Your task to perform on an android device: toggle sleep mode Image 0: 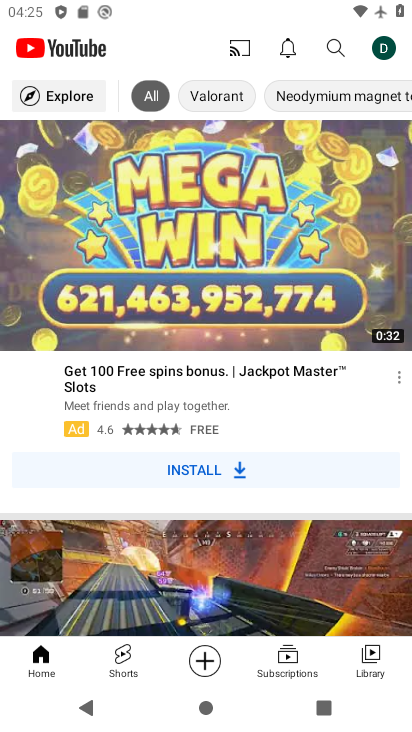
Step 0: press home button
Your task to perform on an android device: toggle sleep mode Image 1: 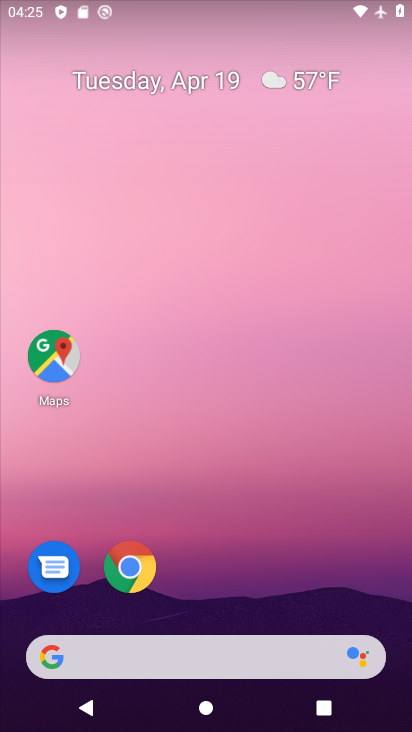
Step 1: drag from (356, 573) to (370, 157)
Your task to perform on an android device: toggle sleep mode Image 2: 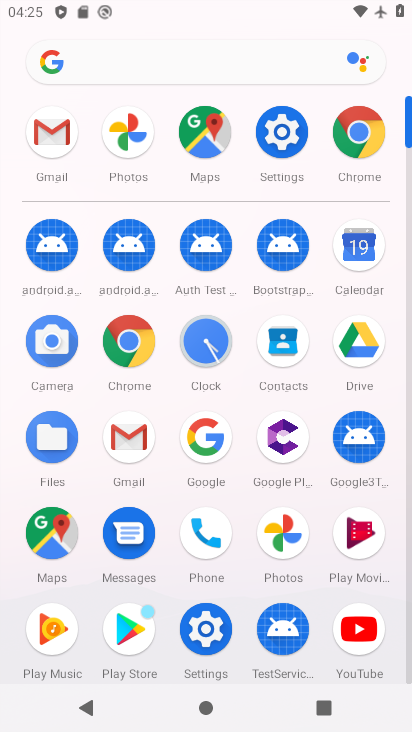
Step 2: click (277, 142)
Your task to perform on an android device: toggle sleep mode Image 3: 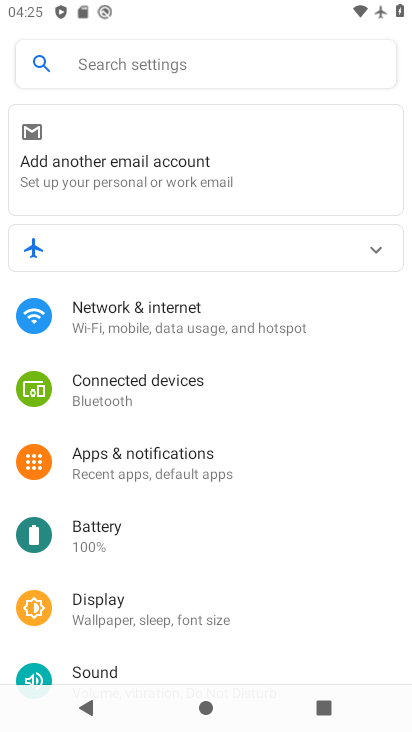
Step 3: drag from (369, 535) to (368, 439)
Your task to perform on an android device: toggle sleep mode Image 4: 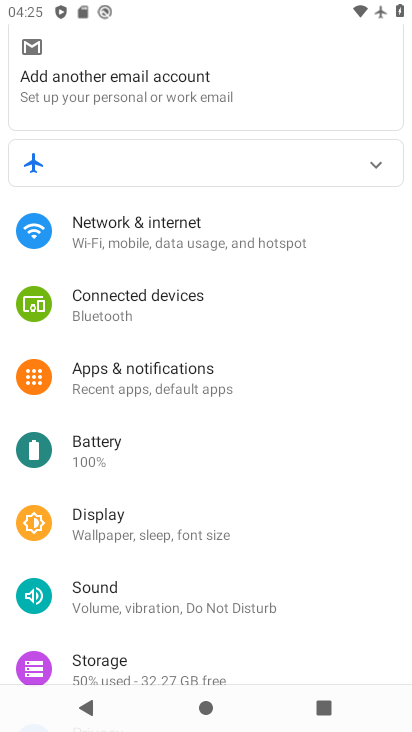
Step 4: drag from (370, 557) to (370, 450)
Your task to perform on an android device: toggle sleep mode Image 5: 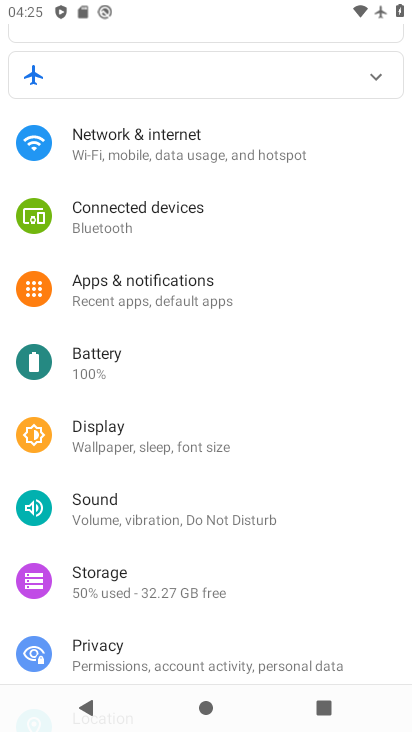
Step 5: drag from (362, 583) to (368, 462)
Your task to perform on an android device: toggle sleep mode Image 6: 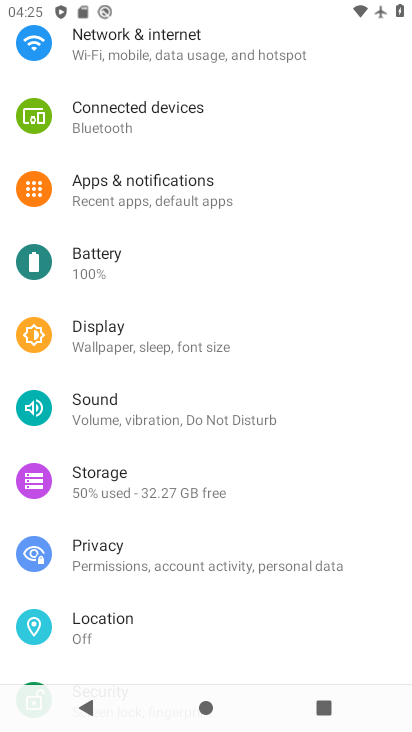
Step 6: drag from (364, 622) to (361, 509)
Your task to perform on an android device: toggle sleep mode Image 7: 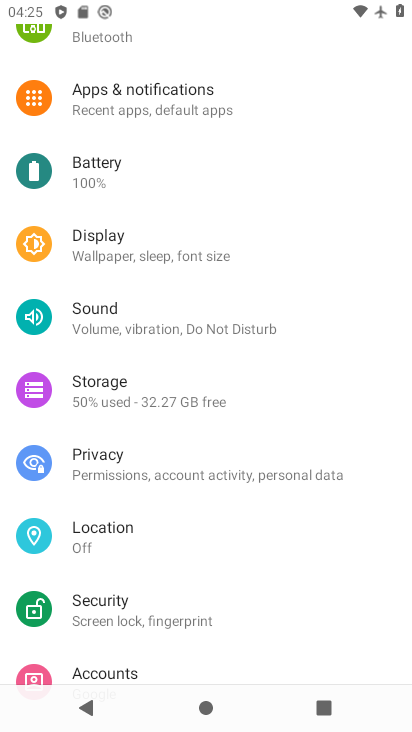
Step 7: drag from (359, 589) to (368, 481)
Your task to perform on an android device: toggle sleep mode Image 8: 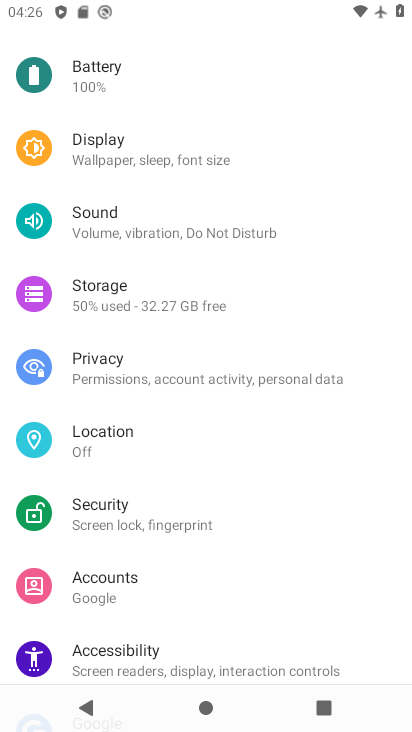
Step 8: drag from (366, 567) to (368, 480)
Your task to perform on an android device: toggle sleep mode Image 9: 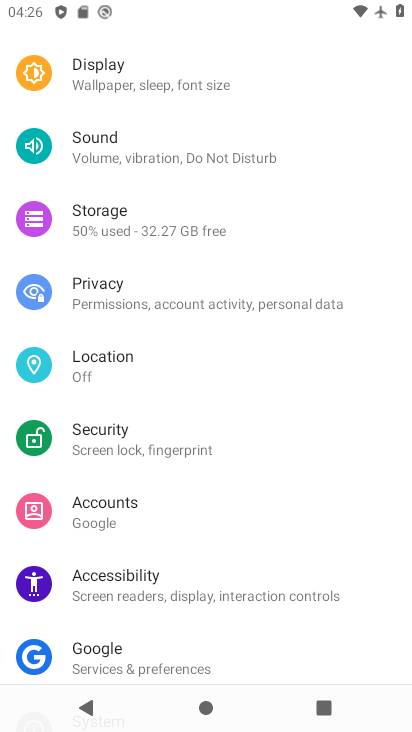
Step 9: drag from (366, 612) to (369, 483)
Your task to perform on an android device: toggle sleep mode Image 10: 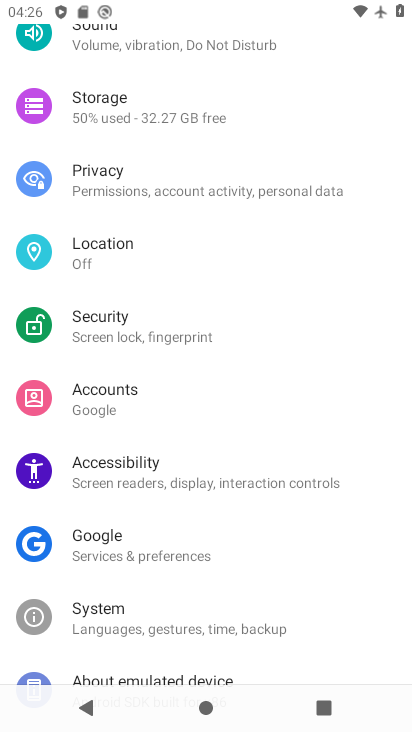
Step 10: drag from (370, 603) to (366, 456)
Your task to perform on an android device: toggle sleep mode Image 11: 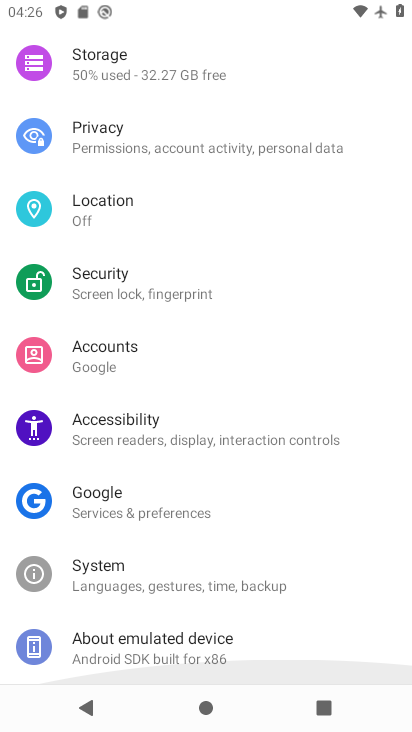
Step 11: drag from (370, 408) to (370, 544)
Your task to perform on an android device: toggle sleep mode Image 12: 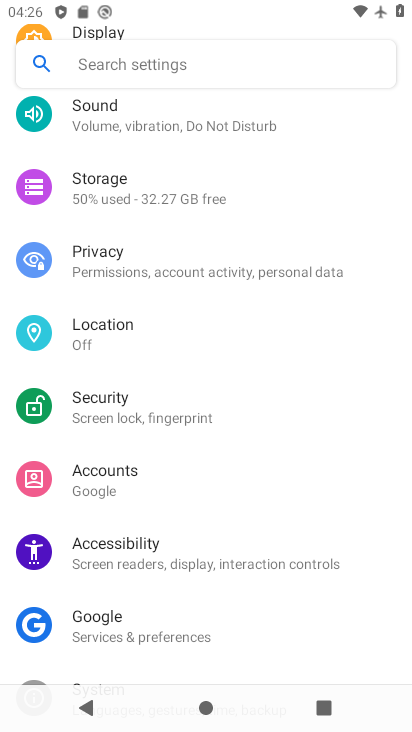
Step 12: drag from (378, 418) to (382, 538)
Your task to perform on an android device: toggle sleep mode Image 13: 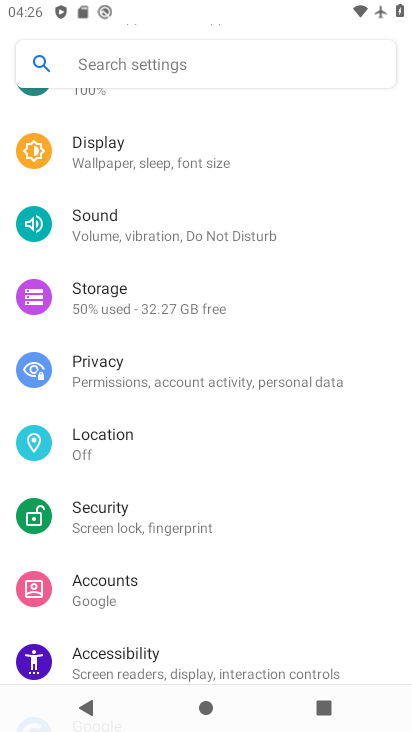
Step 13: drag from (378, 424) to (370, 546)
Your task to perform on an android device: toggle sleep mode Image 14: 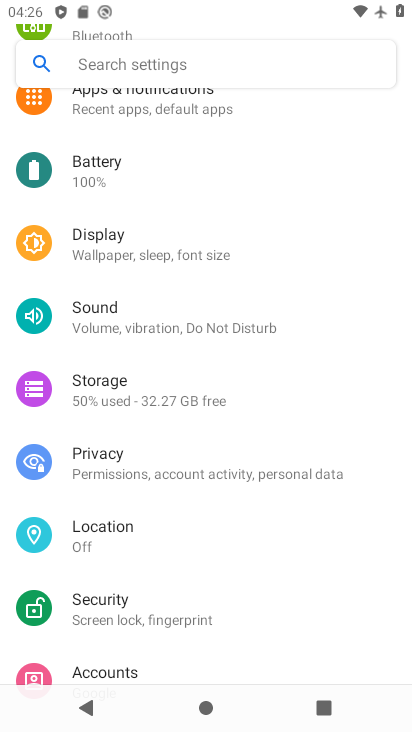
Step 14: drag from (365, 416) to (370, 542)
Your task to perform on an android device: toggle sleep mode Image 15: 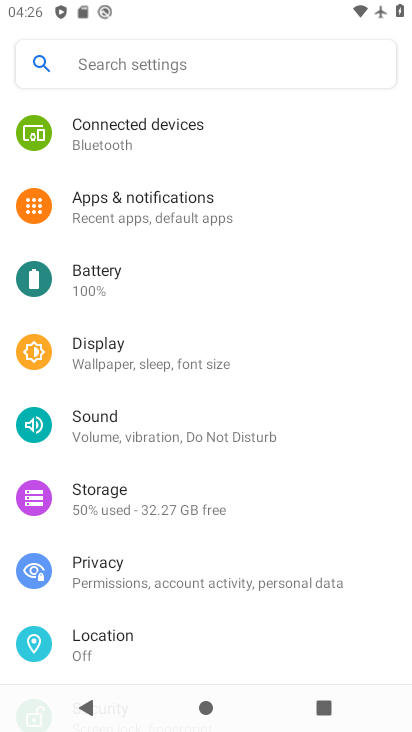
Step 15: drag from (373, 414) to (361, 529)
Your task to perform on an android device: toggle sleep mode Image 16: 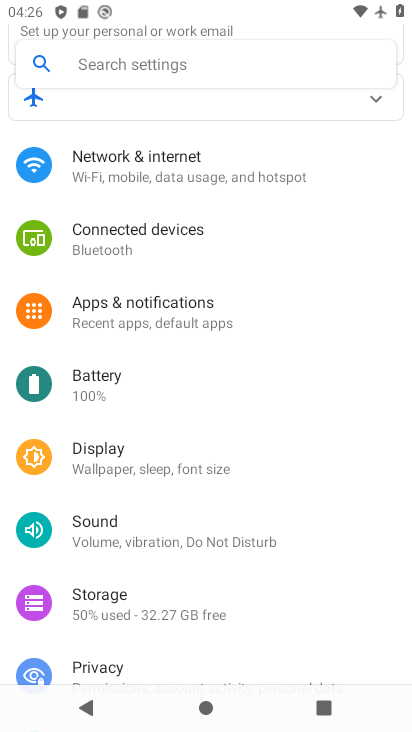
Step 16: click (228, 453)
Your task to perform on an android device: toggle sleep mode Image 17: 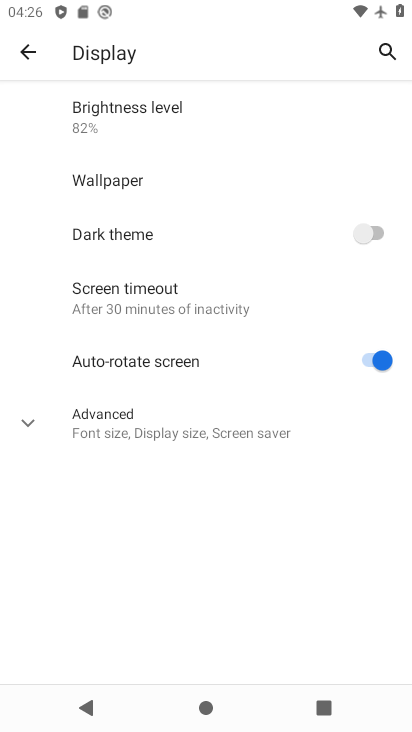
Step 17: click (271, 429)
Your task to perform on an android device: toggle sleep mode Image 18: 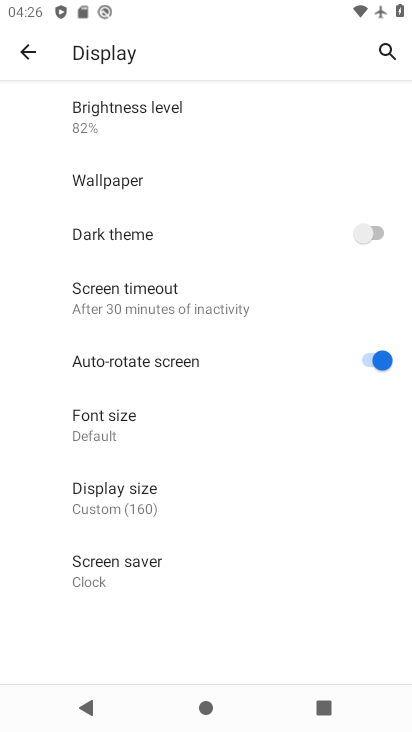
Step 18: task complete